Your task to perform on an android device: Go to eBay Image 0: 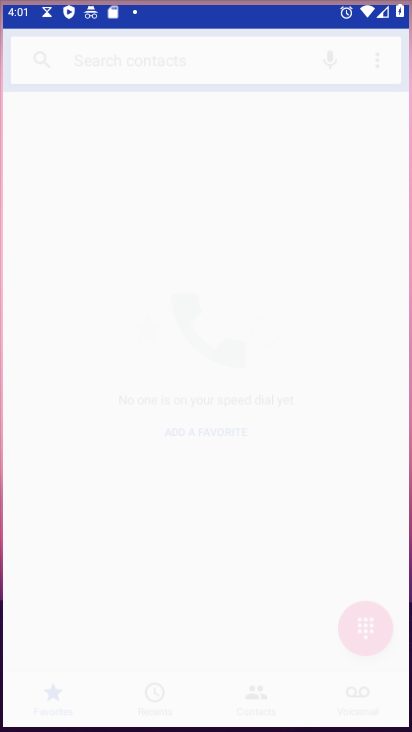
Step 0: drag from (258, 615) to (189, 149)
Your task to perform on an android device: Go to eBay Image 1: 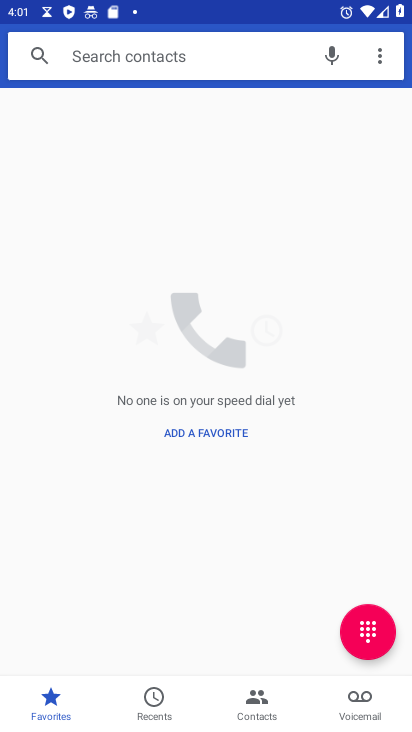
Step 1: press back button
Your task to perform on an android device: Go to eBay Image 2: 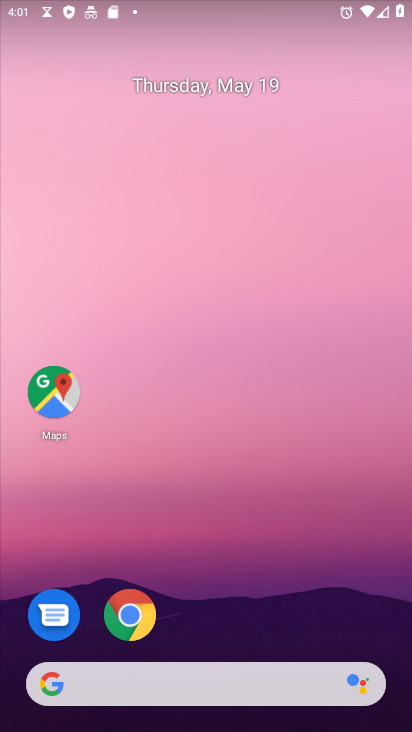
Step 2: drag from (119, 281) to (406, 386)
Your task to perform on an android device: Go to eBay Image 3: 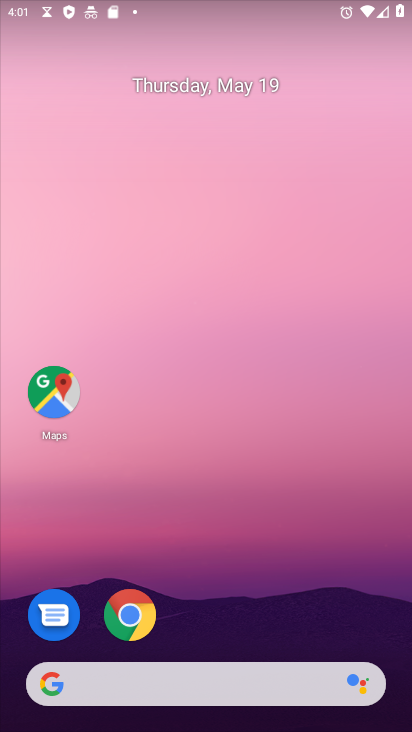
Step 3: drag from (15, 280) to (395, 478)
Your task to perform on an android device: Go to eBay Image 4: 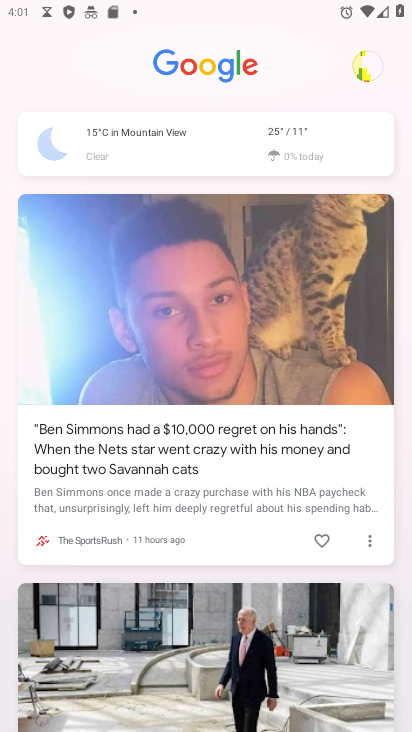
Step 4: drag from (357, 371) to (54, 435)
Your task to perform on an android device: Go to eBay Image 5: 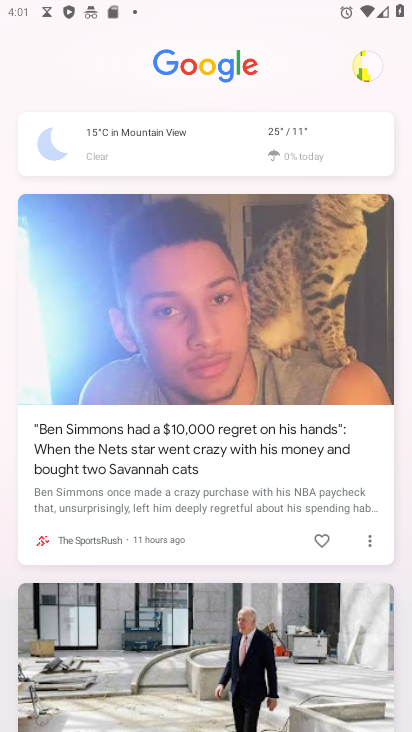
Step 5: press back button
Your task to perform on an android device: Go to eBay Image 6: 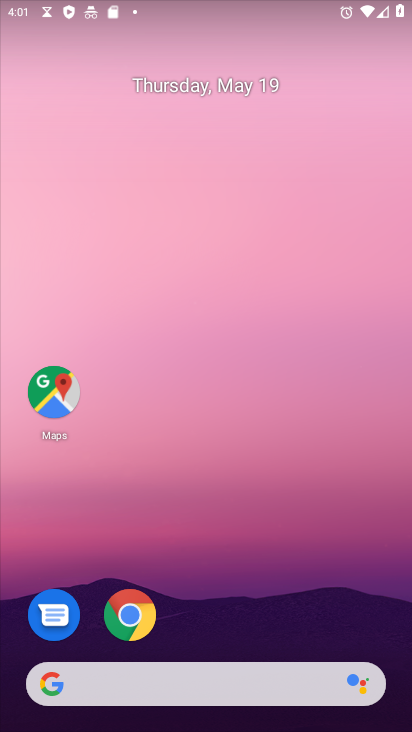
Step 6: drag from (296, 624) to (167, 12)
Your task to perform on an android device: Go to eBay Image 7: 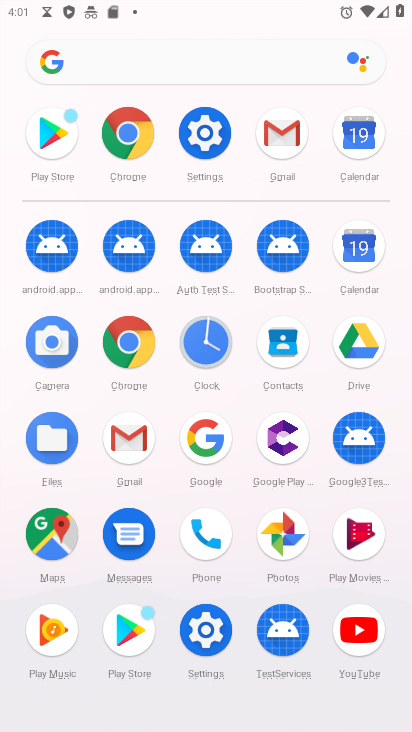
Step 7: drag from (233, 565) to (211, 110)
Your task to perform on an android device: Go to eBay Image 8: 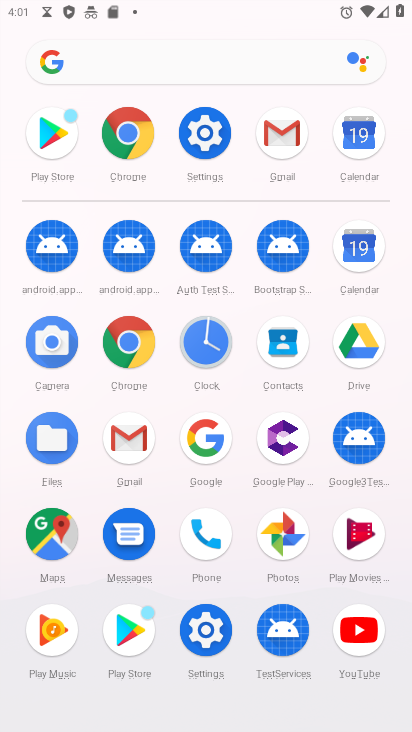
Step 8: click (131, 128)
Your task to perform on an android device: Go to eBay Image 9: 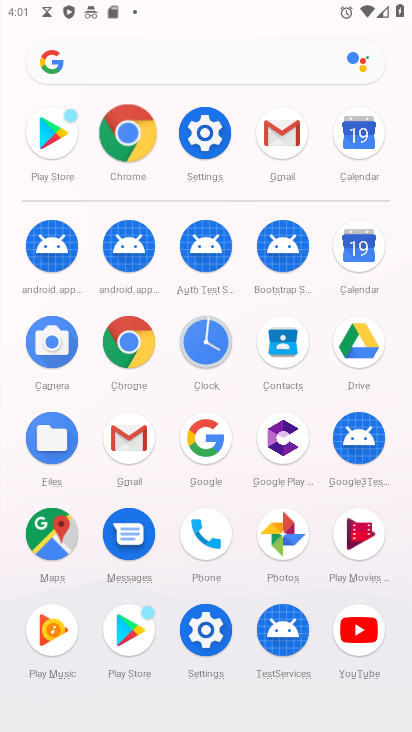
Step 9: click (132, 127)
Your task to perform on an android device: Go to eBay Image 10: 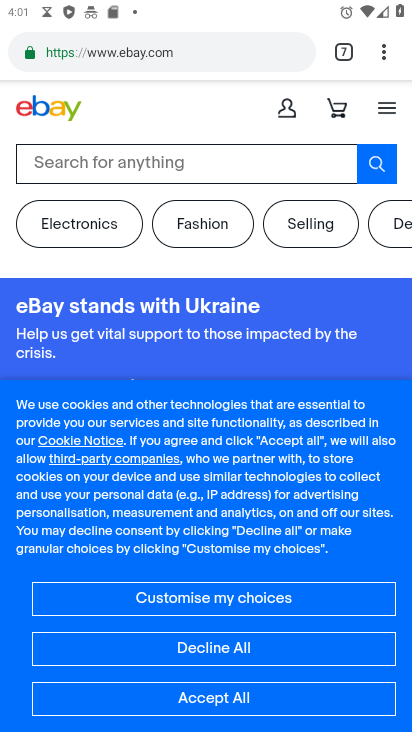
Step 10: drag from (383, 60) to (179, 114)
Your task to perform on an android device: Go to eBay Image 11: 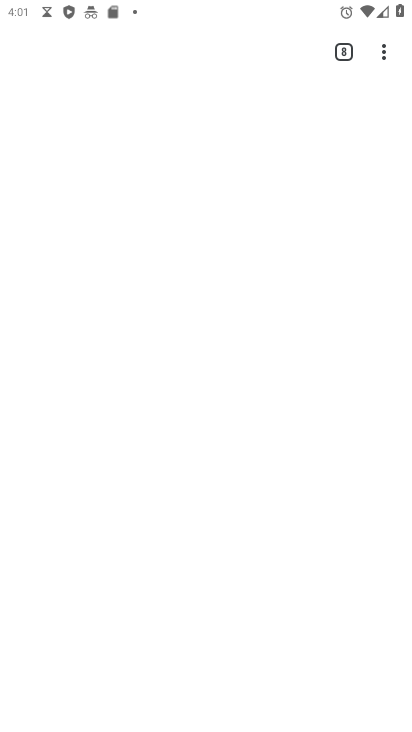
Step 11: click (80, 107)
Your task to perform on an android device: Go to eBay Image 12: 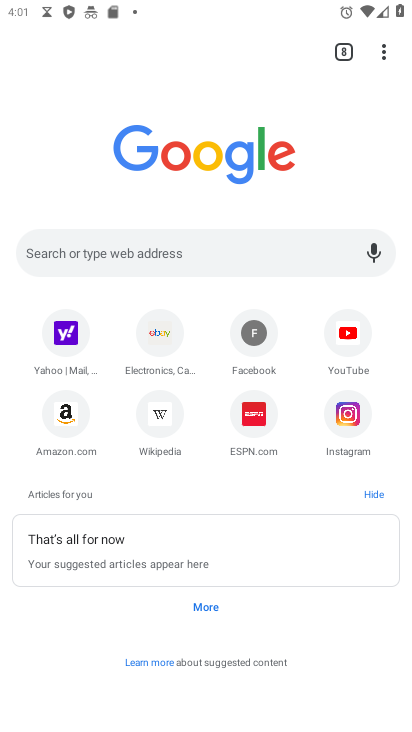
Step 12: task complete